Your task to perform on an android device: turn off picture-in-picture Image 0: 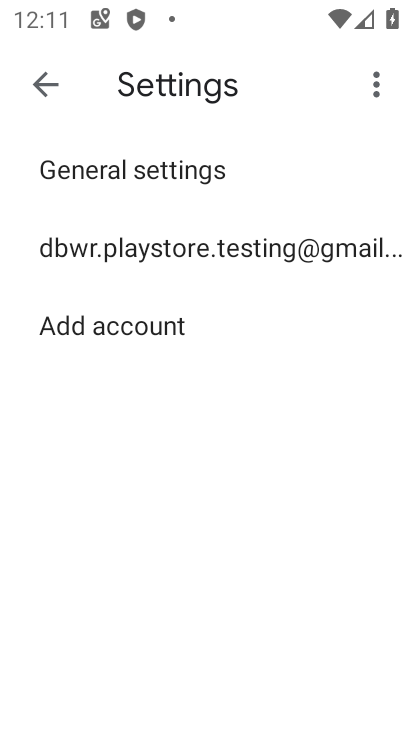
Step 0: press back button
Your task to perform on an android device: turn off picture-in-picture Image 1: 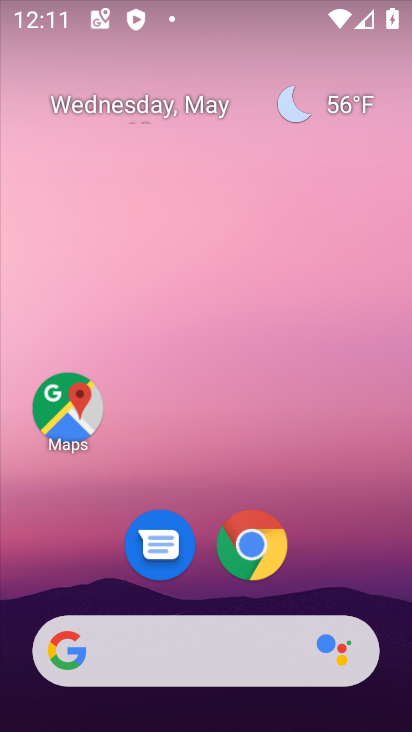
Step 1: click (255, 545)
Your task to perform on an android device: turn off picture-in-picture Image 2: 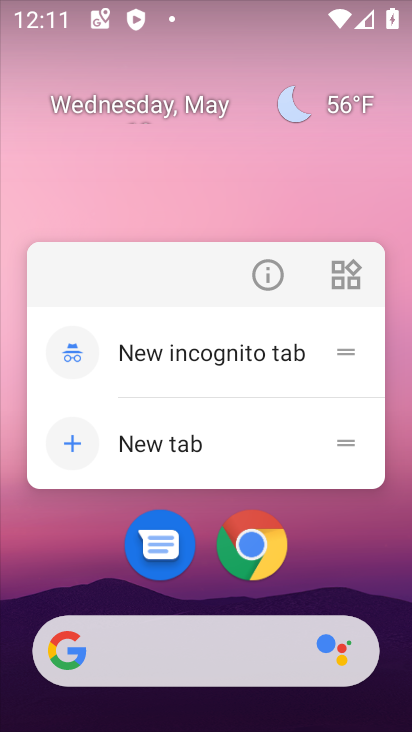
Step 2: click (264, 275)
Your task to perform on an android device: turn off picture-in-picture Image 3: 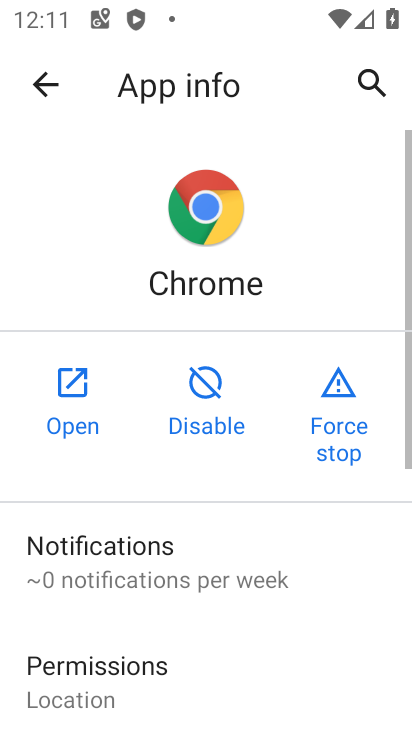
Step 3: drag from (208, 579) to (265, 387)
Your task to perform on an android device: turn off picture-in-picture Image 4: 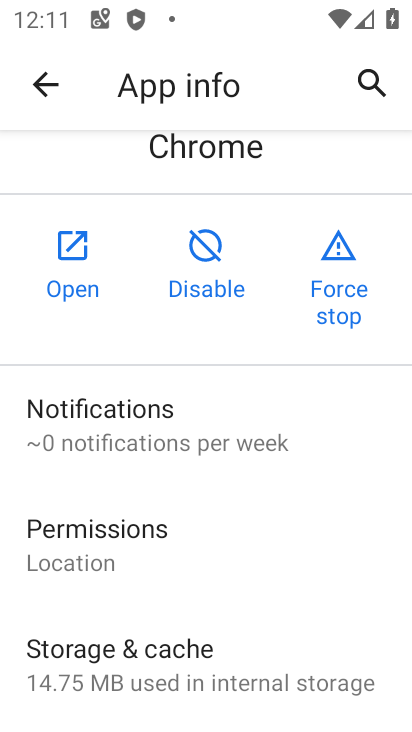
Step 4: drag from (184, 593) to (218, 423)
Your task to perform on an android device: turn off picture-in-picture Image 5: 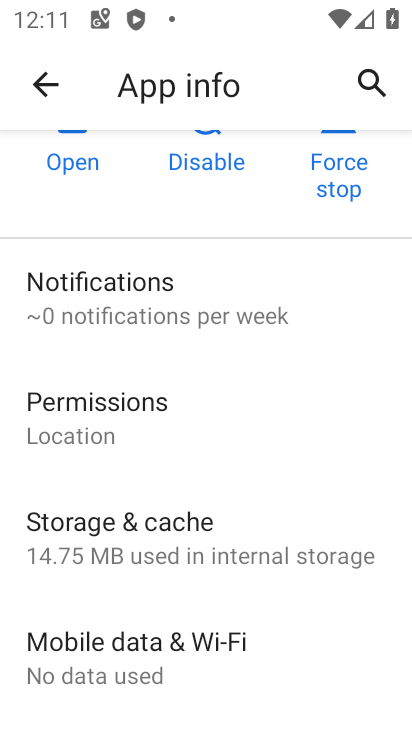
Step 5: drag from (158, 573) to (251, 442)
Your task to perform on an android device: turn off picture-in-picture Image 6: 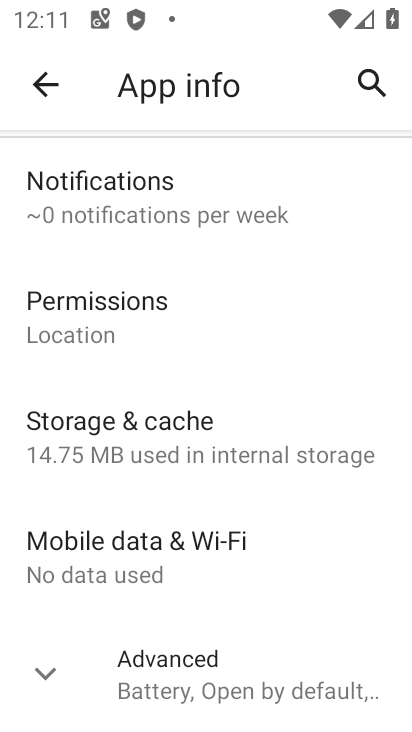
Step 6: click (191, 672)
Your task to perform on an android device: turn off picture-in-picture Image 7: 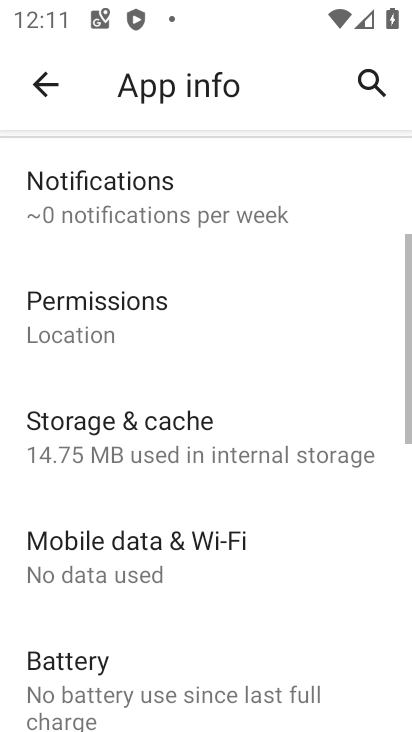
Step 7: drag from (202, 651) to (205, 422)
Your task to perform on an android device: turn off picture-in-picture Image 8: 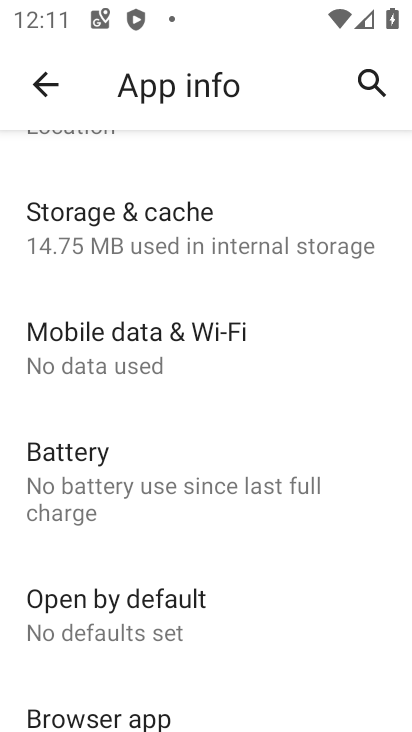
Step 8: drag from (174, 561) to (208, 421)
Your task to perform on an android device: turn off picture-in-picture Image 9: 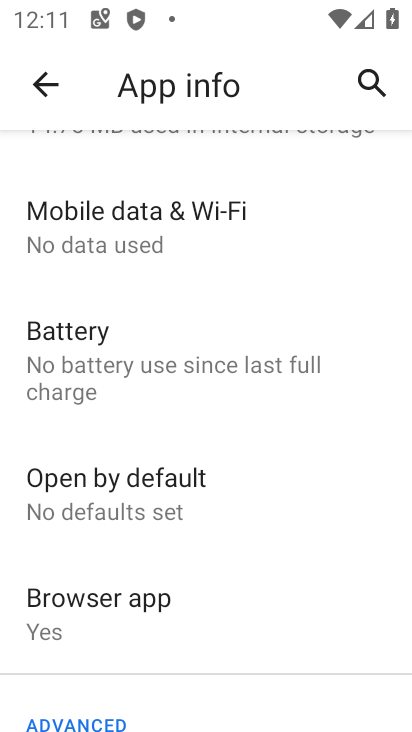
Step 9: drag from (164, 652) to (258, 436)
Your task to perform on an android device: turn off picture-in-picture Image 10: 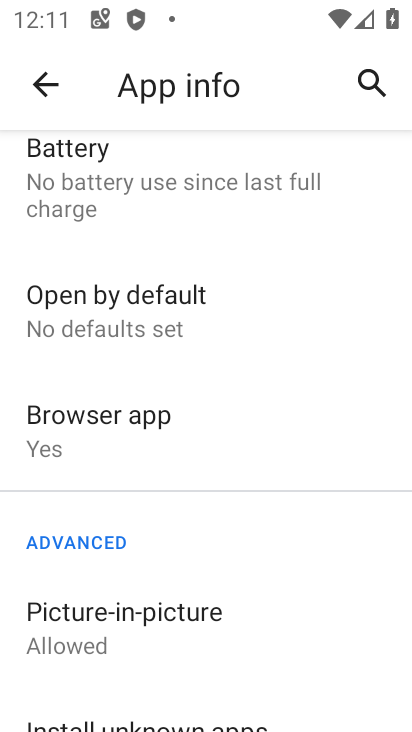
Step 10: click (144, 619)
Your task to perform on an android device: turn off picture-in-picture Image 11: 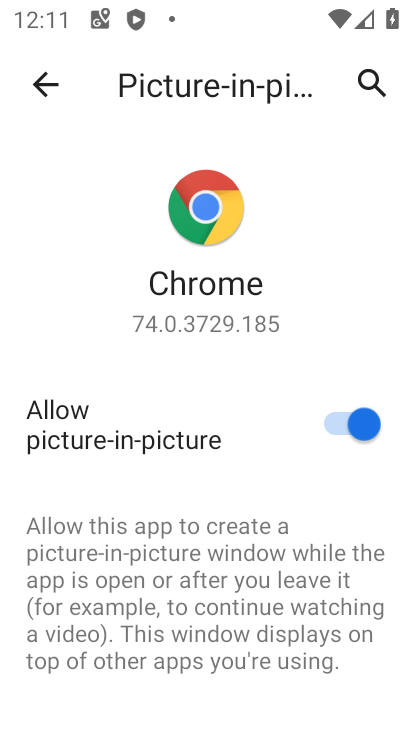
Step 11: click (337, 431)
Your task to perform on an android device: turn off picture-in-picture Image 12: 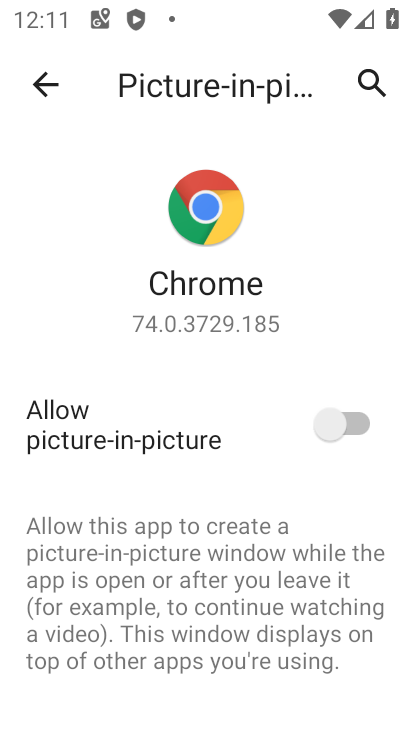
Step 12: task complete